Your task to perform on an android device: find which apps use the phone's location Image 0: 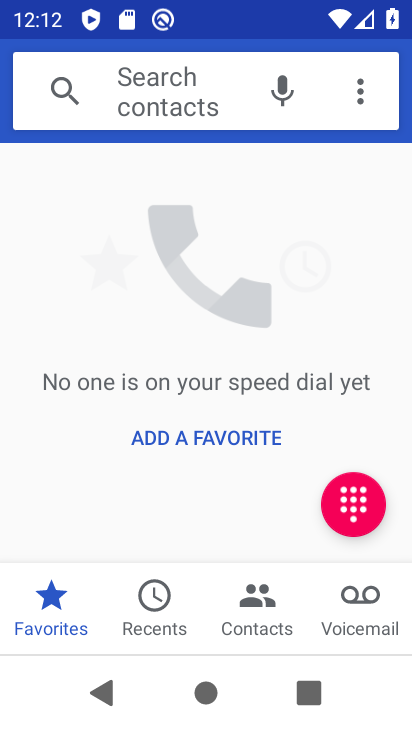
Step 0: press home button
Your task to perform on an android device: find which apps use the phone's location Image 1: 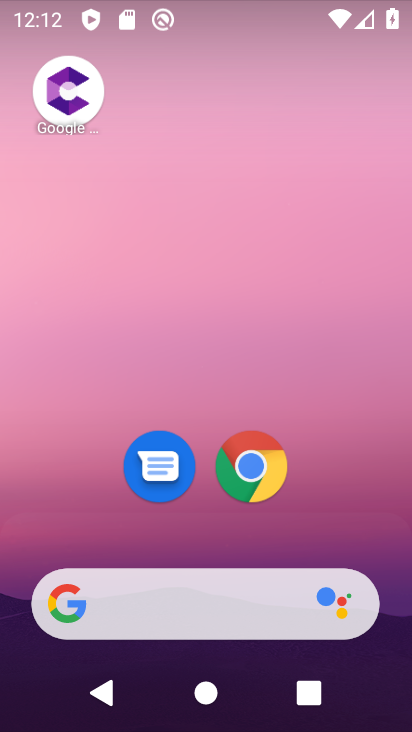
Step 1: drag from (323, 513) to (354, 101)
Your task to perform on an android device: find which apps use the phone's location Image 2: 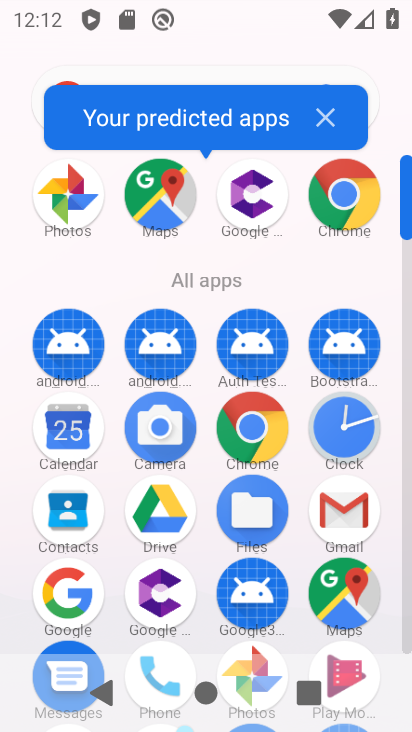
Step 2: click (405, 606)
Your task to perform on an android device: find which apps use the phone's location Image 3: 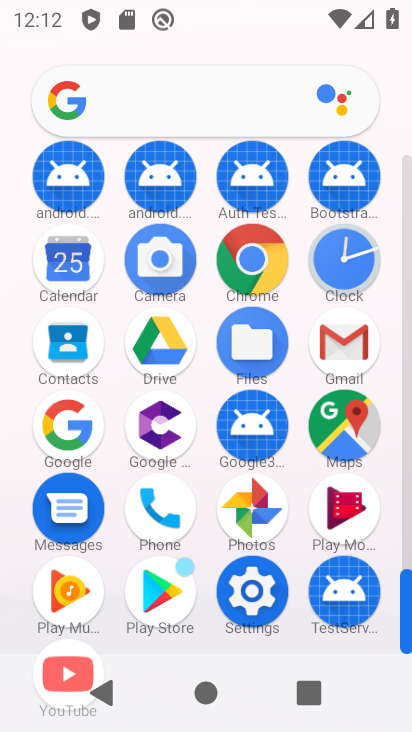
Step 3: click (158, 513)
Your task to perform on an android device: find which apps use the phone's location Image 4: 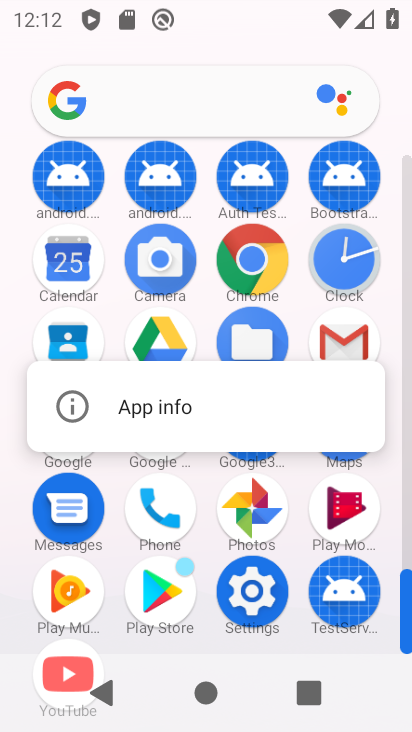
Step 4: click (159, 398)
Your task to perform on an android device: find which apps use the phone's location Image 5: 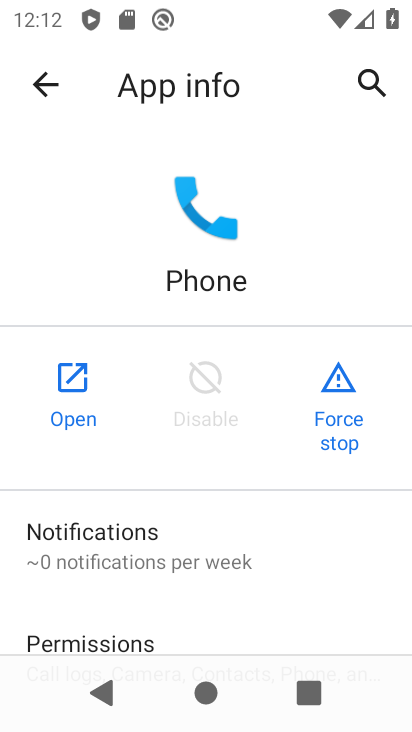
Step 5: drag from (165, 570) to (271, 359)
Your task to perform on an android device: find which apps use the phone's location Image 6: 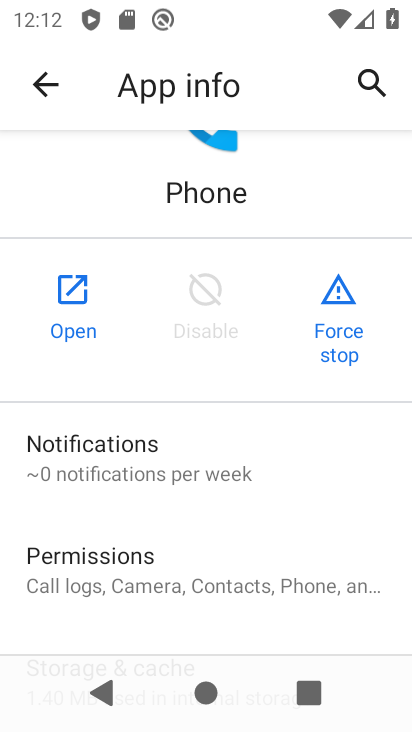
Step 6: click (183, 561)
Your task to perform on an android device: find which apps use the phone's location Image 7: 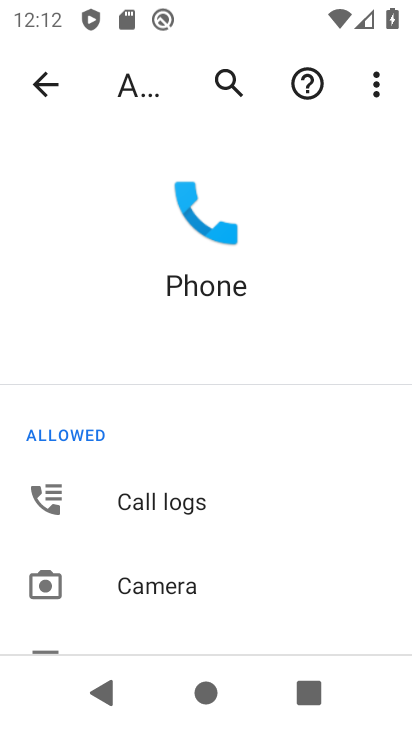
Step 7: drag from (183, 561) to (184, 256)
Your task to perform on an android device: find which apps use the phone's location Image 8: 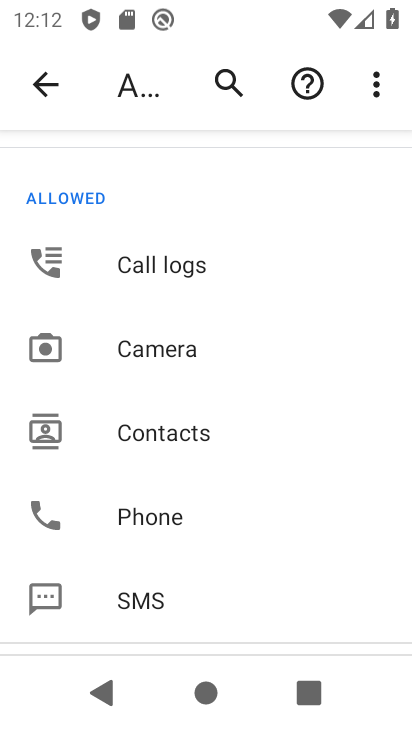
Step 8: drag from (85, 496) to (160, 163)
Your task to perform on an android device: find which apps use the phone's location Image 9: 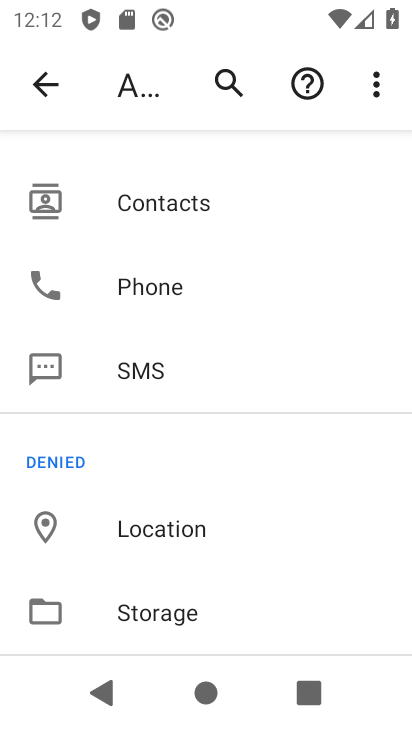
Step 9: click (173, 546)
Your task to perform on an android device: find which apps use the phone's location Image 10: 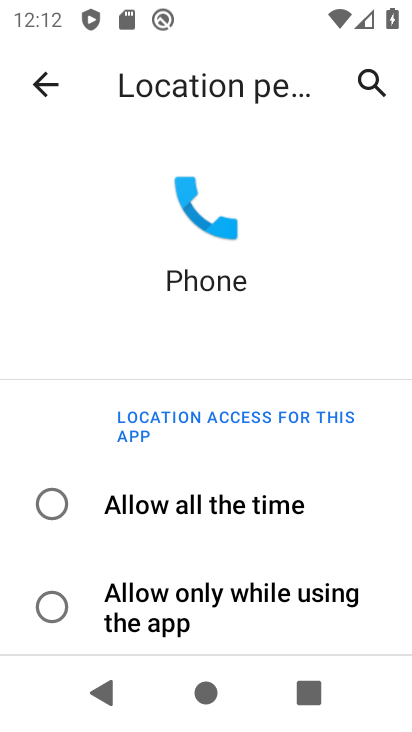
Step 10: drag from (164, 535) to (264, 166)
Your task to perform on an android device: find which apps use the phone's location Image 11: 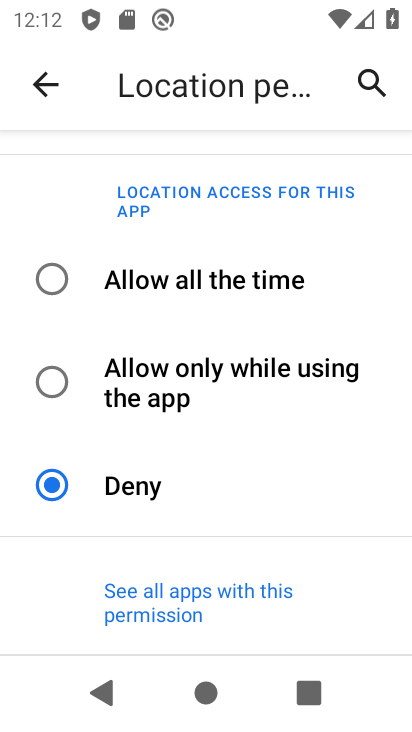
Step 11: click (191, 592)
Your task to perform on an android device: find which apps use the phone's location Image 12: 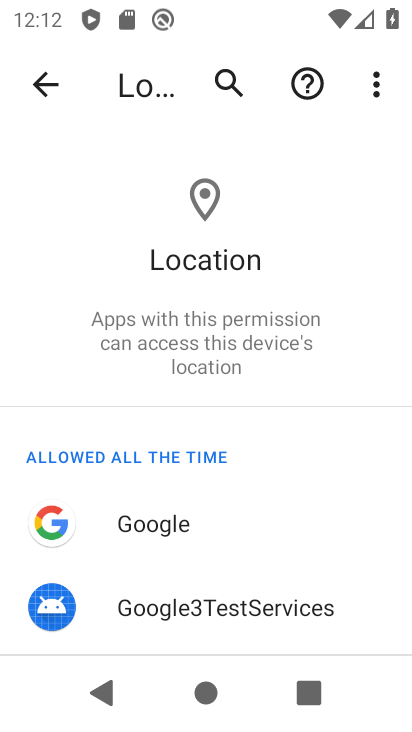
Step 12: task complete